Your task to perform on an android device: add a contact Image 0: 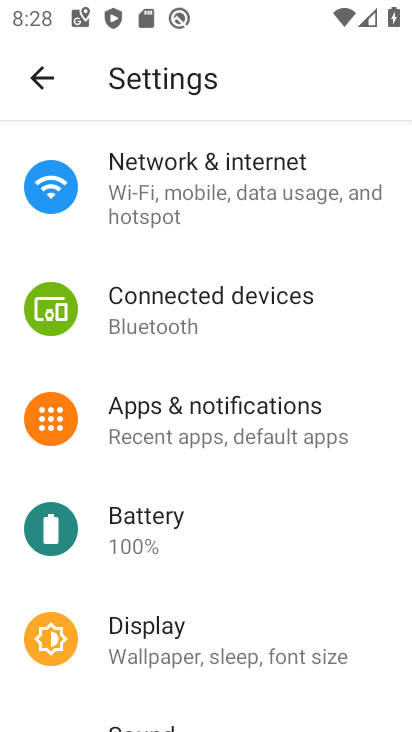
Step 0: press home button
Your task to perform on an android device: add a contact Image 1: 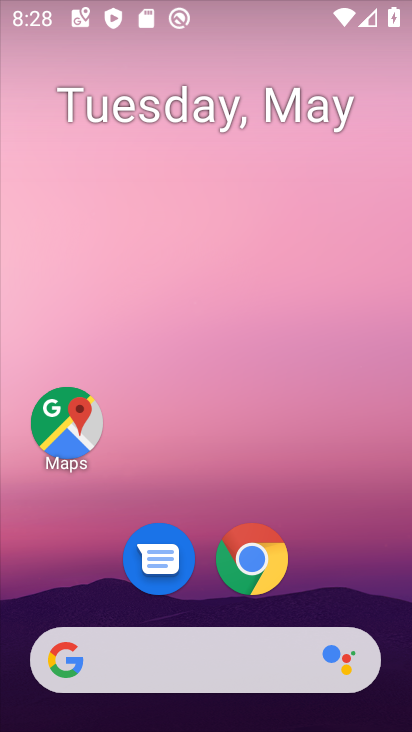
Step 1: drag from (379, 557) to (367, 114)
Your task to perform on an android device: add a contact Image 2: 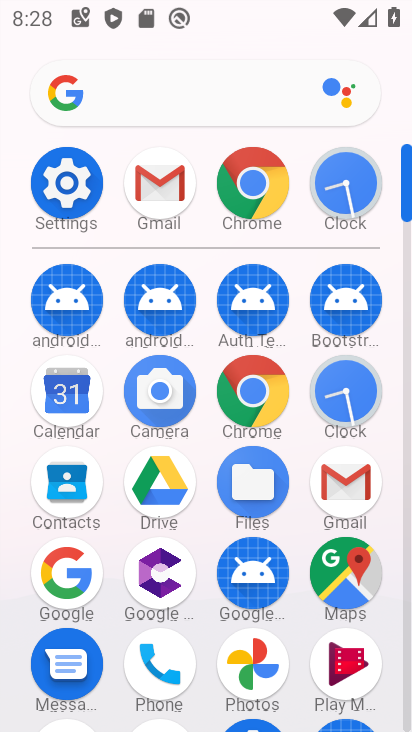
Step 2: click (166, 668)
Your task to perform on an android device: add a contact Image 3: 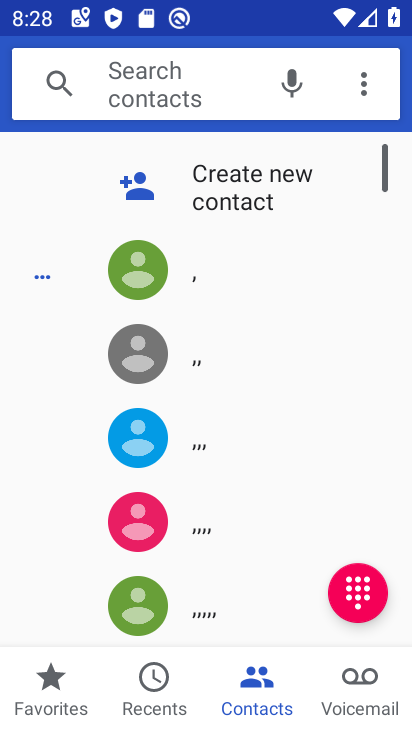
Step 3: click (200, 199)
Your task to perform on an android device: add a contact Image 4: 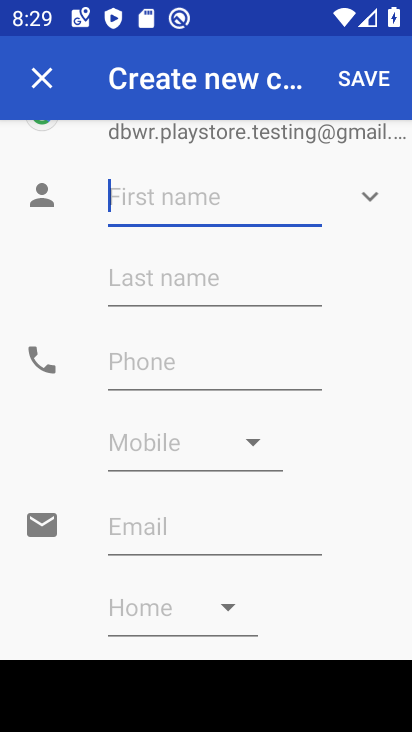
Step 4: type "tyy"
Your task to perform on an android device: add a contact Image 5: 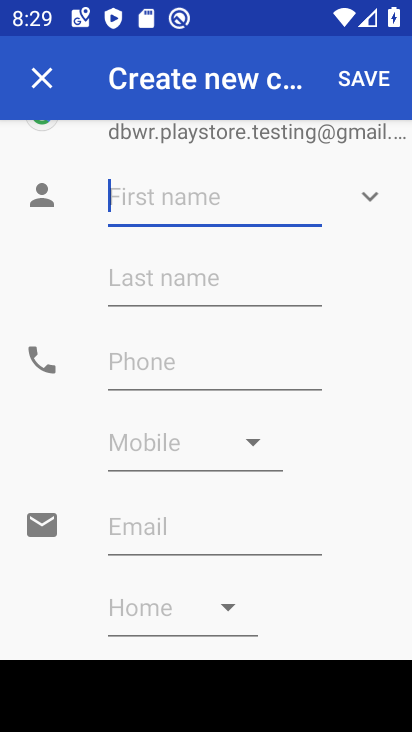
Step 5: click (216, 366)
Your task to perform on an android device: add a contact Image 6: 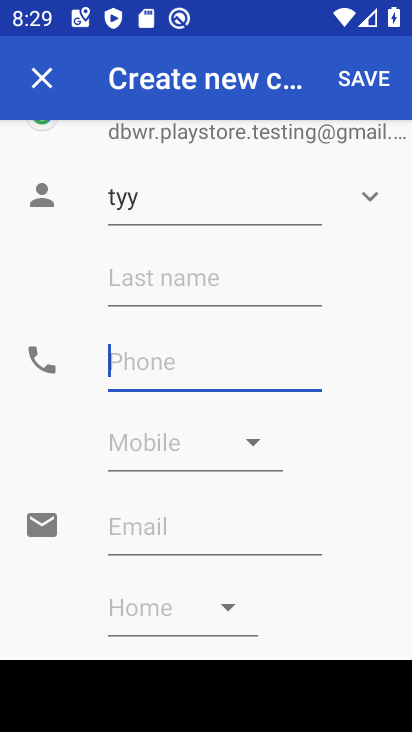
Step 6: type "56777777"
Your task to perform on an android device: add a contact Image 7: 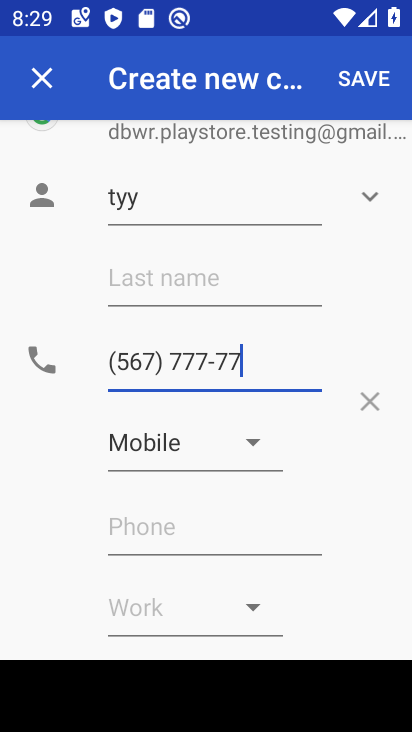
Step 7: click (355, 80)
Your task to perform on an android device: add a contact Image 8: 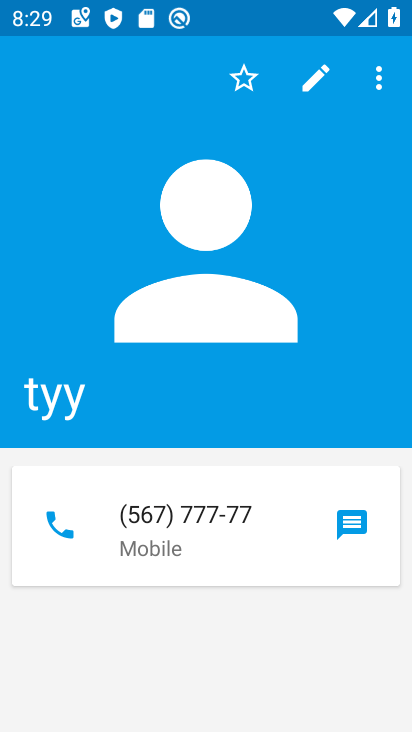
Step 8: task complete